Your task to perform on an android device: open sync settings in chrome Image 0: 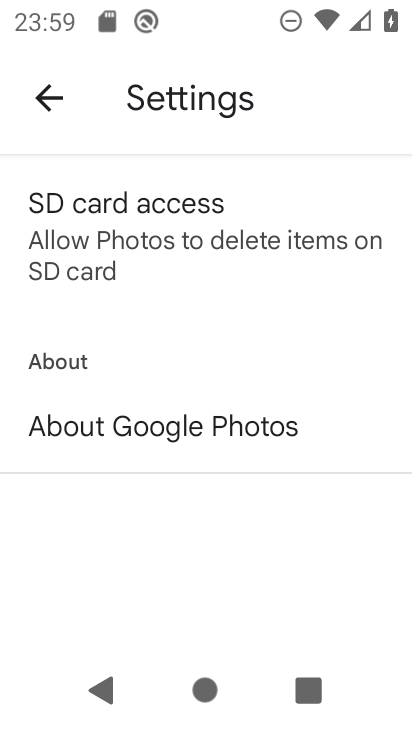
Step 0: press home button
Your task to perform on an android device: open sync settings in chrome Image 1: 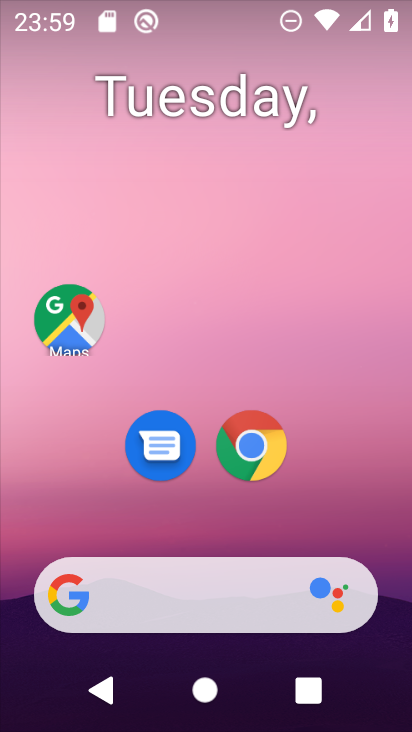
Step 1: click (265, 442)
Your task to perform on an android device: open sync settings in chrome Image 2: 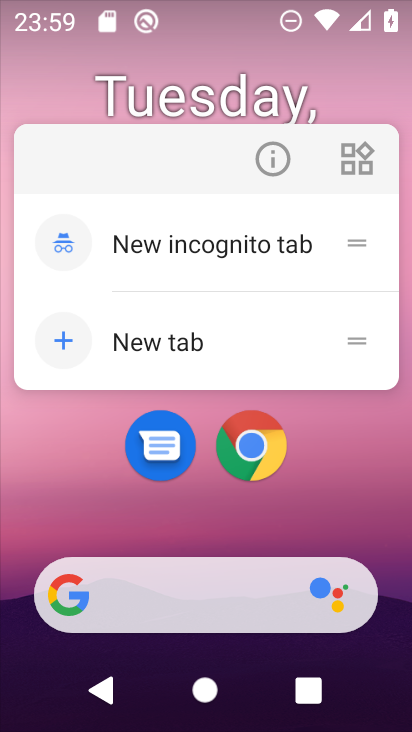
Step 2: click (259, 441)
Your task to perform on an android device: open sync settings in chrome Image 3: 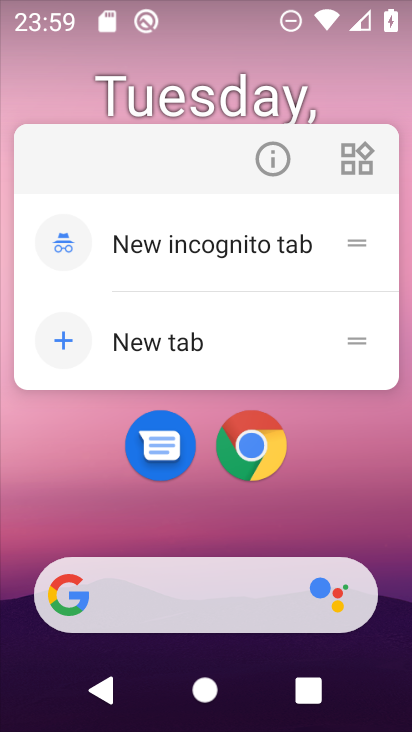
Step 3: click (259, 441)
Your task to perform on an android device: open sync settings in chrome Image 4: 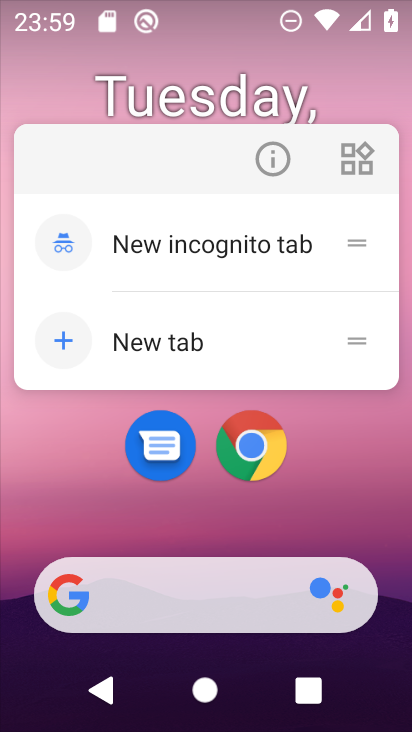
Step 4: click (259, 441)
Your task to perform on an android device: open sync settings in chrome Image 5: 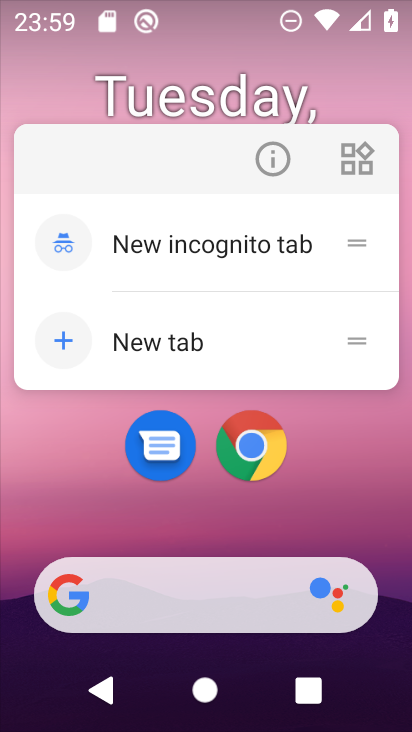
Step 5: click (261, 464)
Your task to perform on an android device: open sync settings in chrome Image 6: 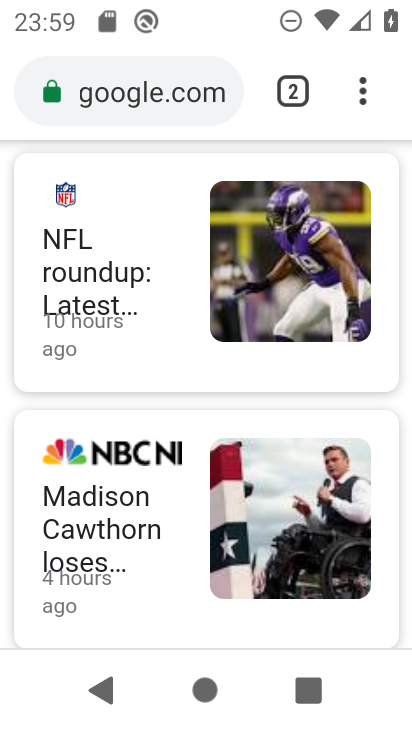
Step 6: click (369, 114)
Your task to perform on an android device: open sync settings in chrome Image 7: 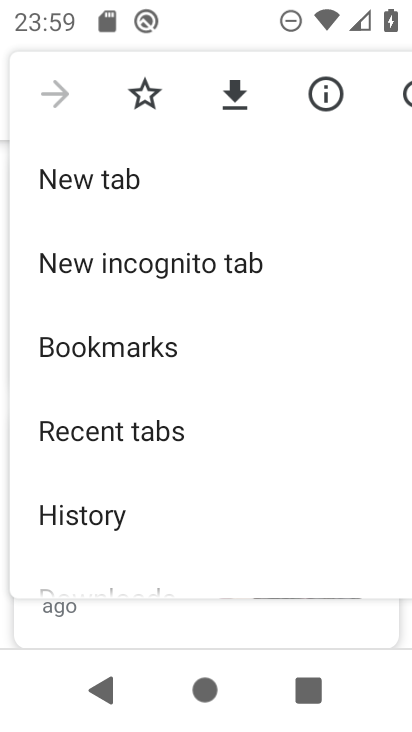
Step 7: drag from (85, 504) to (151, 163)
Your task to perform on an android device: open sync settings in chrome Image 8: 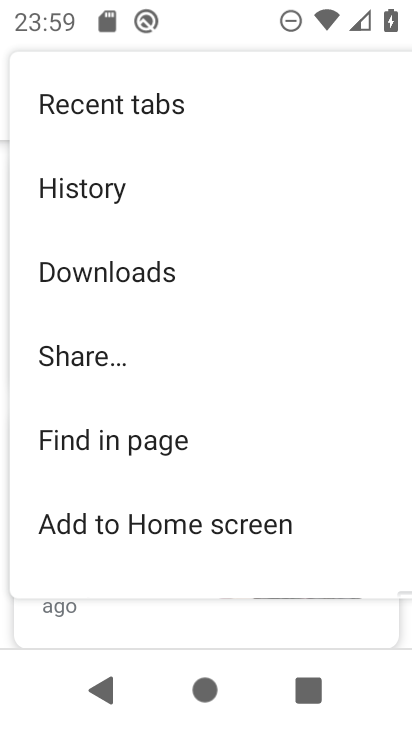
Step 8: drag from (155, 234) to (235, 55)
Your task to perform on an android device: open sync settings in chrome Image 9: 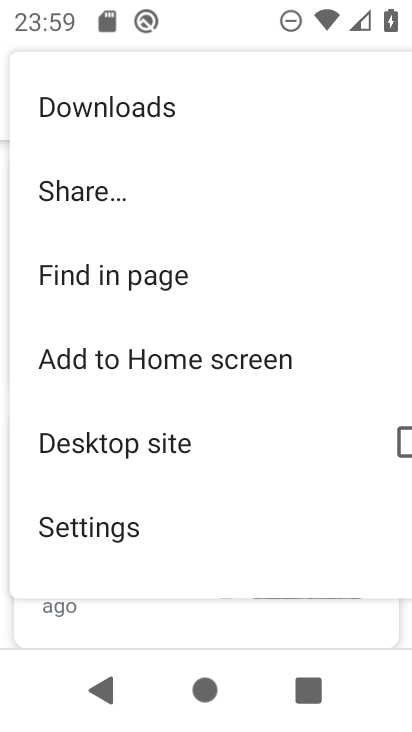
Step 9: click (229, 540)
Your task to perform on an android device: open sync settings in chrome Image 10: 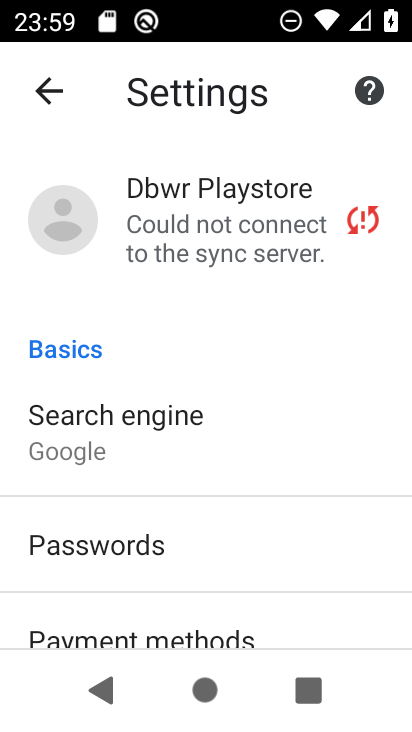
Step 10: click (233, 251)
Your task to perform on an android device: open sync settings in chrome Image 11: 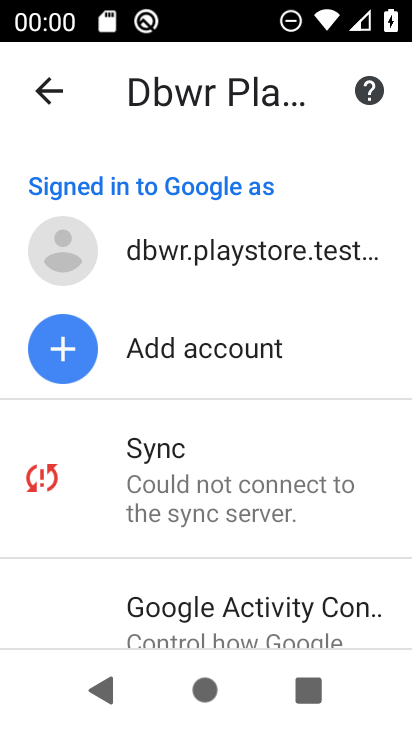
Step 11: click (232, 504)
Your task to perform on an android device: open sync settings in chrome Image 12: 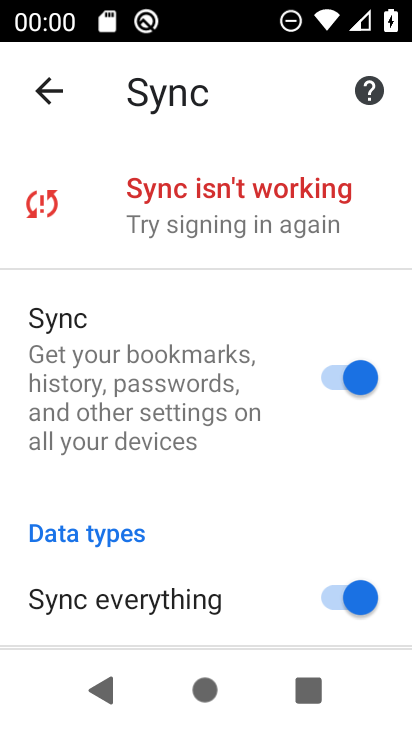
Step 12: task complete